Your task to perform on an android device: Go to CNN.com Image 0: 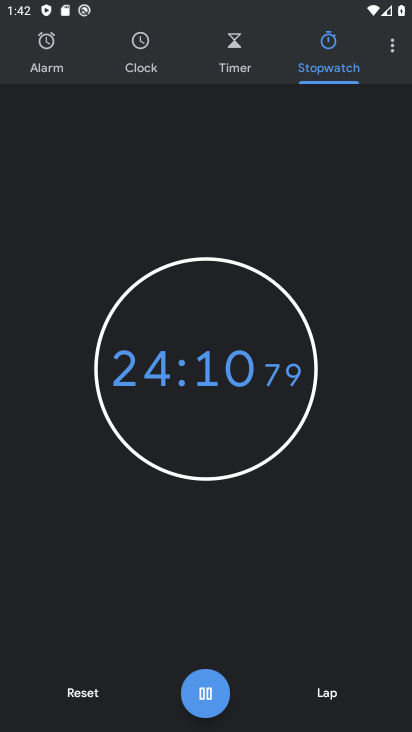
Step 0: press home button
Your task to perform on an android device: Go to CNN.com Image 1: 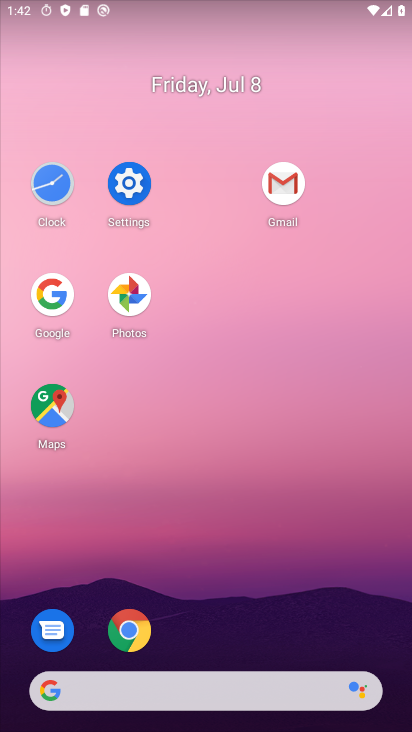
Step 1: click (135, 626)
Your task to perform on an android device: Go to CNN.com Image 2: 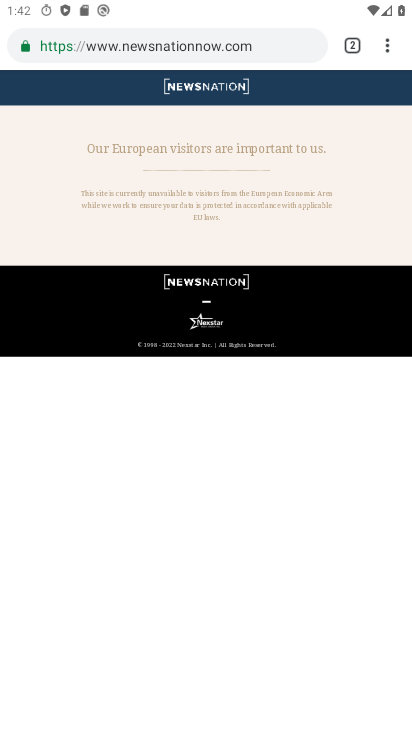
Step 2: press home button
Your task to perform on an android device: Go to CNN.com Image 3: 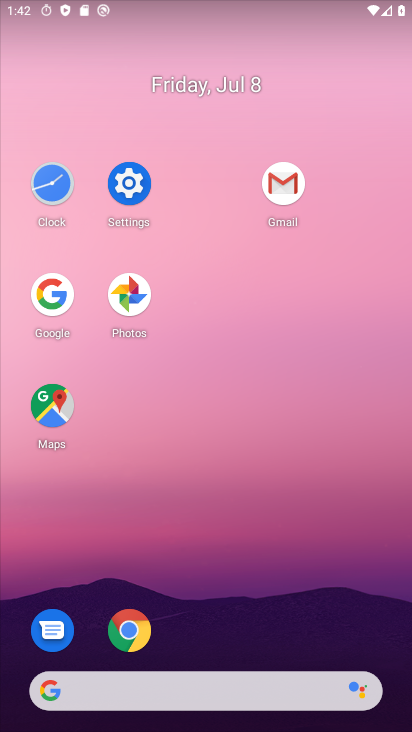
Step 3: click (137, 617)
Your task to perform on an android device: Go to CNN.com Image 4: 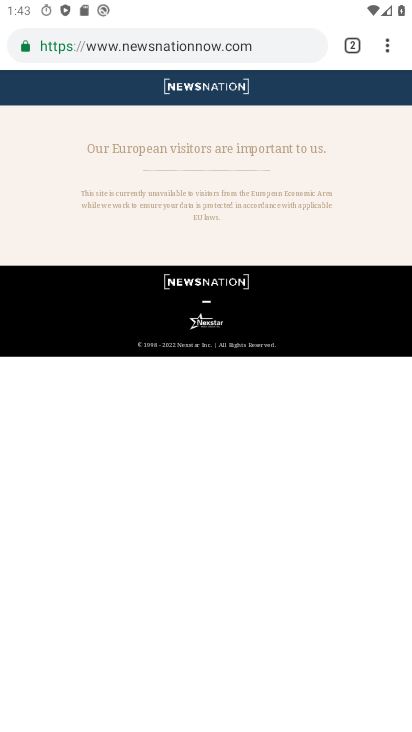
Step 4: click (353, 44)
Your task to perform on an android device: Go to CNN.com Image 5: 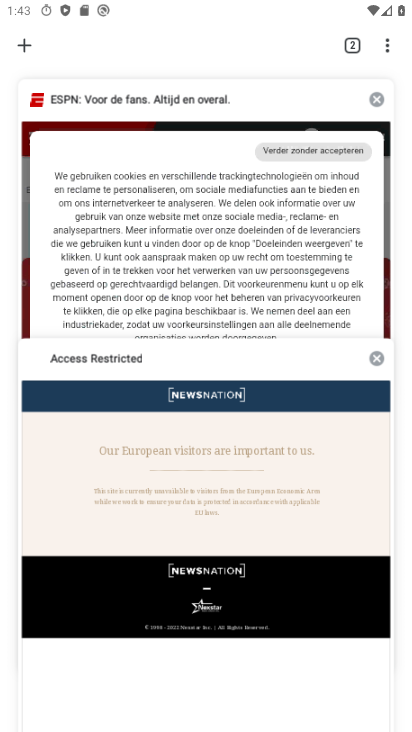
Step 5: click (28, 38)
Your task to perform on an android device: Go to CNN.com Image 6: 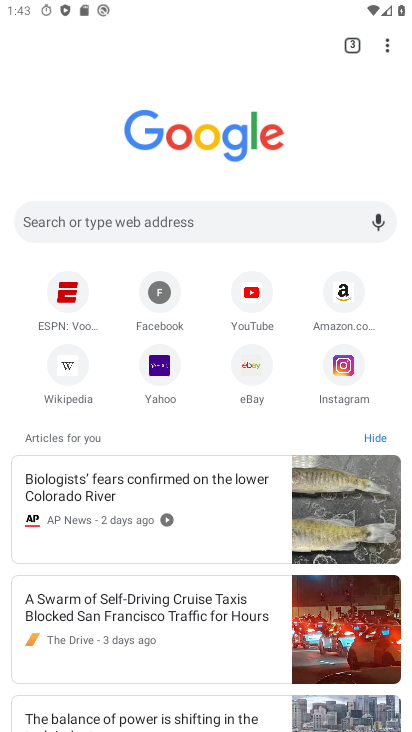
Step 6: click (92, 210)
Your task to perform on an android device: Go to CNN.com Image 7: 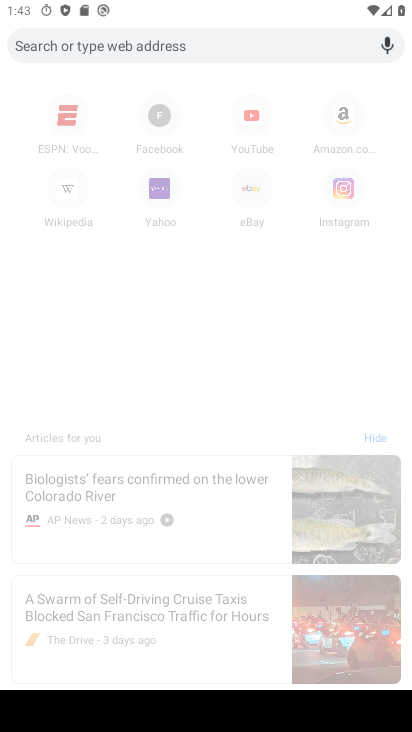
Step 7: type "cnn"
Your task to perform on an android device: Go to CNN.com Image 8: 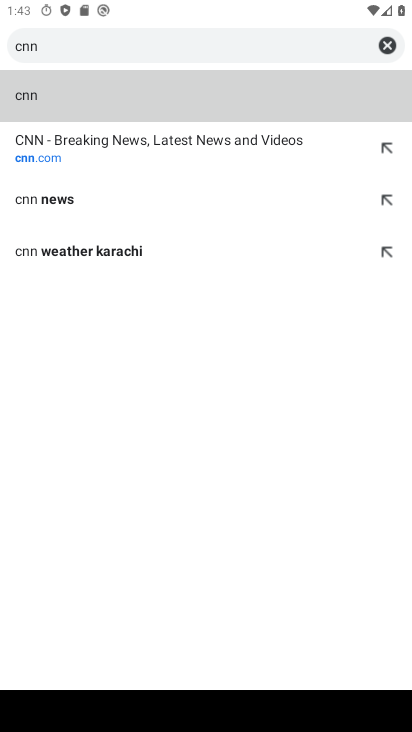
Step 8: click (236, 131)
Your task to perform on an android device: Go to CNN.com Image 9: 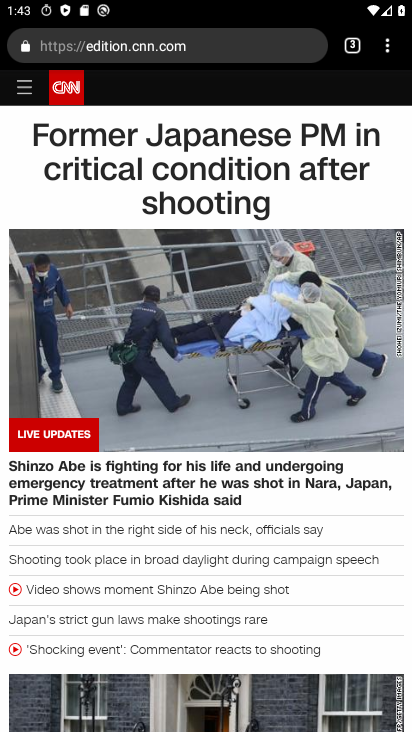
Step 9: task complete